Your task to perform on an android device: change notifications settings Image 0: 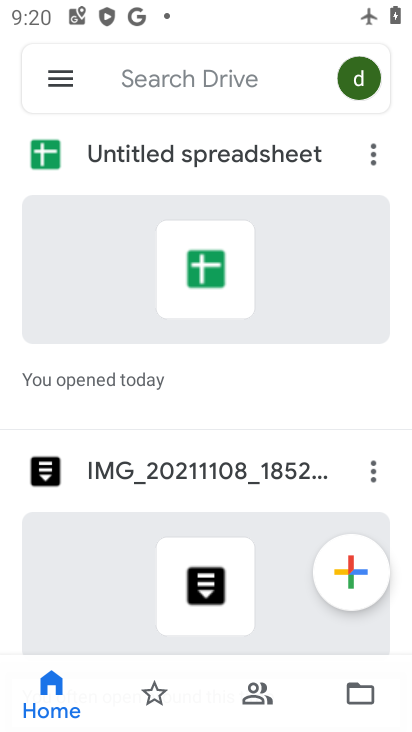
Step 0: press home button
Your task to perform on an android device: change notifications settings Image 1: 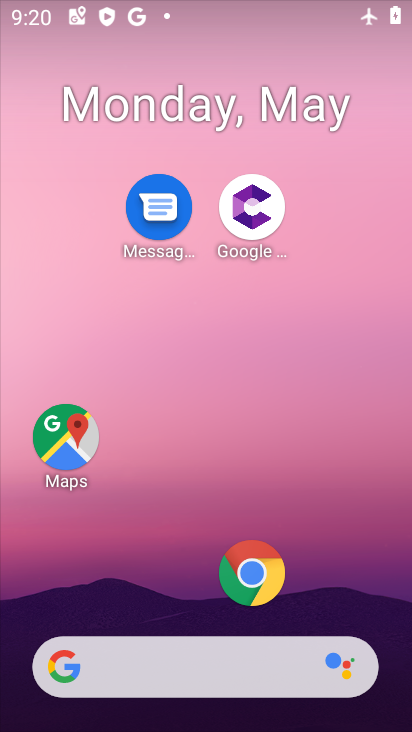
Step 1: drag from (245, 534) to (285, 235)
Your task to perform on an android device: change notifications settings Image 2: 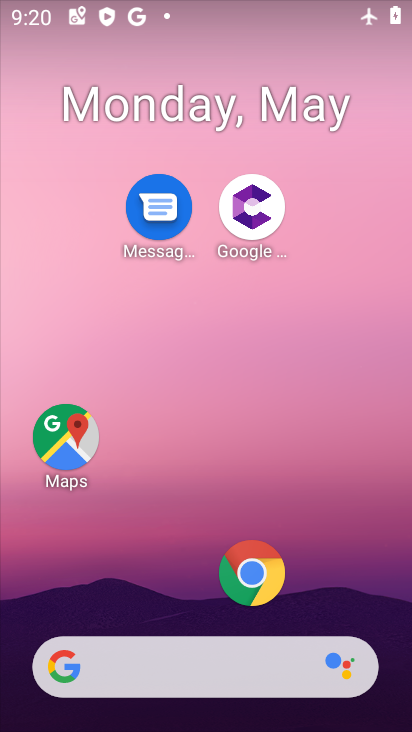
Step 2: drag from (333, 612) to (270, 130)
Your task to perform on an android device: change notifications settings Image 3: 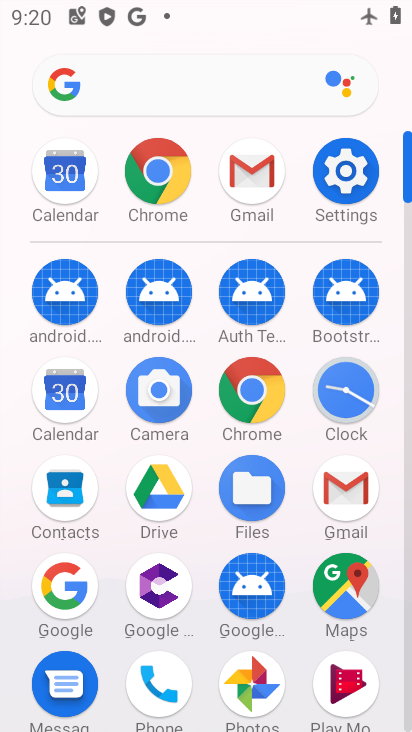
Step 3: click (341, 213)
Your task to perform on an android device: change notifications settings Image 4: 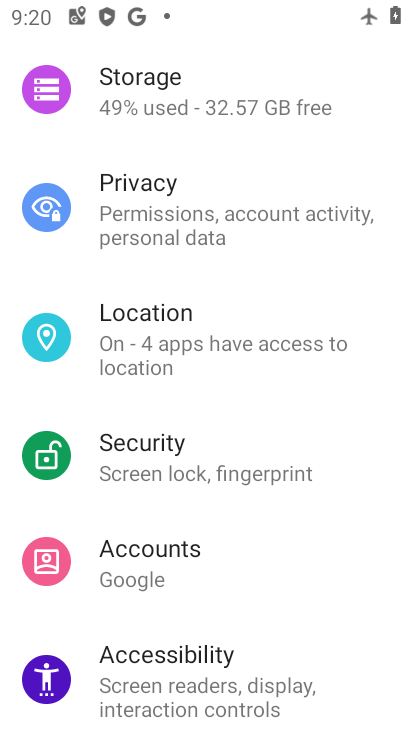
Step 4: drag from (251, 271) to (240, 672)
Your task to perform on an android device: change notifications settings Image 5: 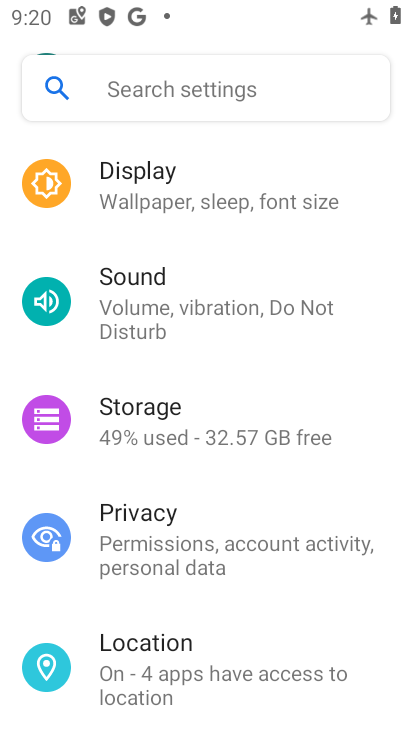
Step 5: drag from (252, 324) to (282, 665)
Your task to perform on an android device: change notifications settings Image 6: 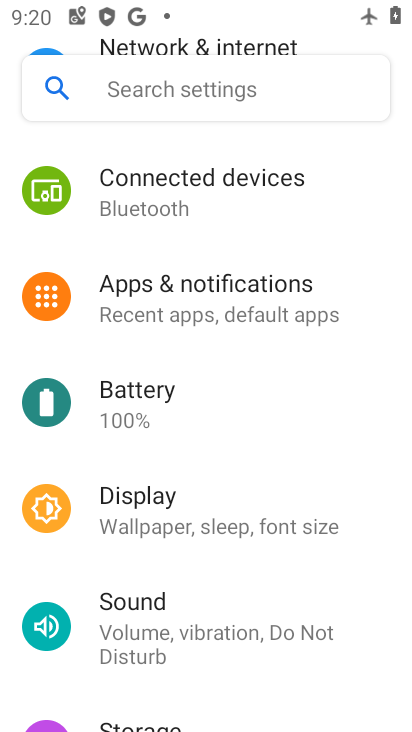
Step 6: click (251, 289)
Your task to perform on an android device: change notifications settings Image 7: 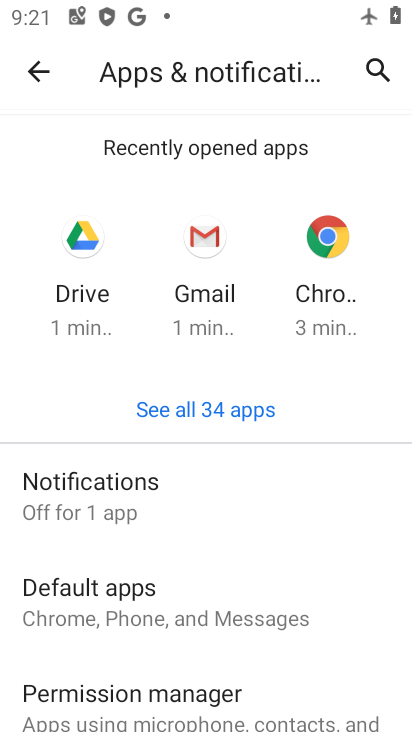
Step 7: click (165, 504)
Your task to perform on an android device: change notifications settings Image 8: 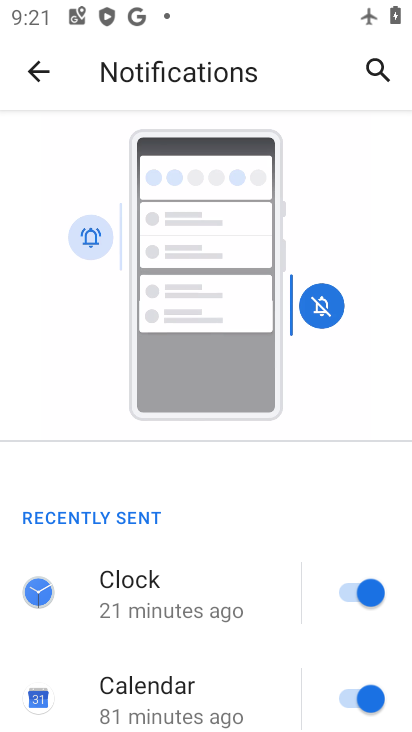
Step 8: click (344, 610)
Your task to perform on an android device: change notifications settings Image 9: 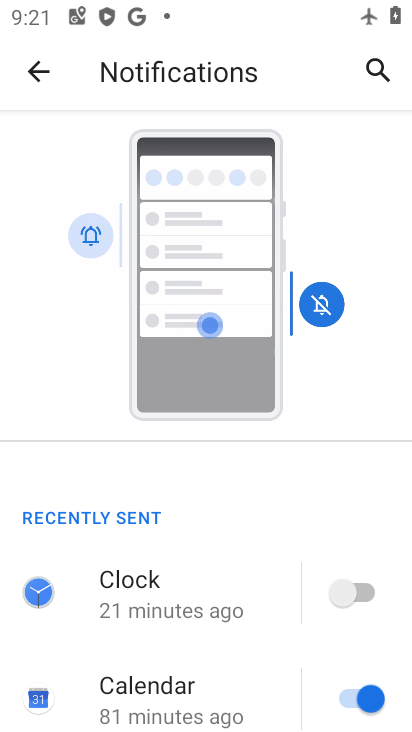
Step 9: task complete